Your task to perform on an android device: see creations saved in the google photos Image 0: 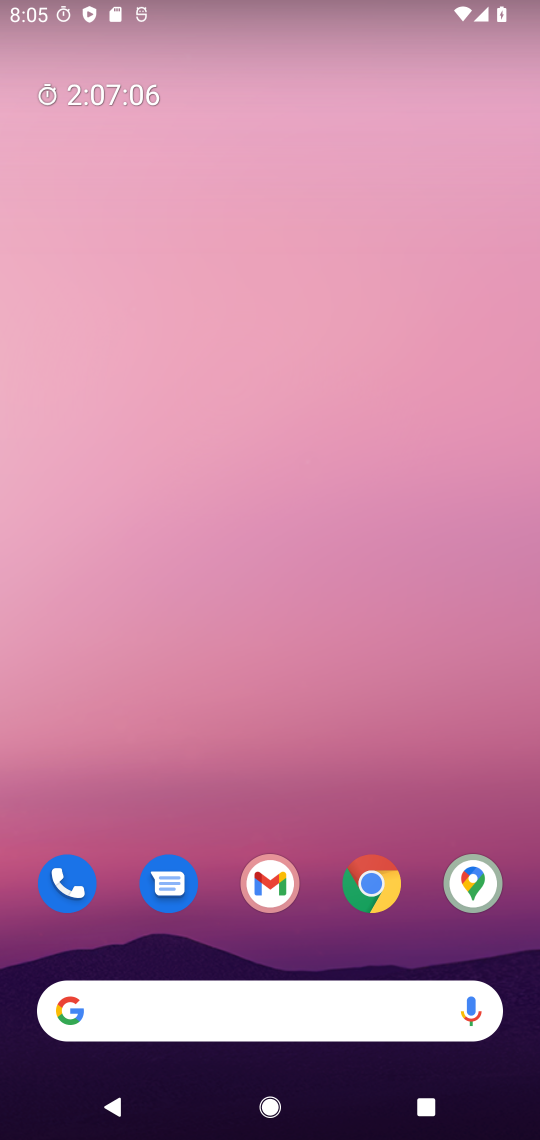
Step 0: drag from (271, 792) to (314, 323)
Your task to perform on an android device: see creations saved in the google photos Image 1: 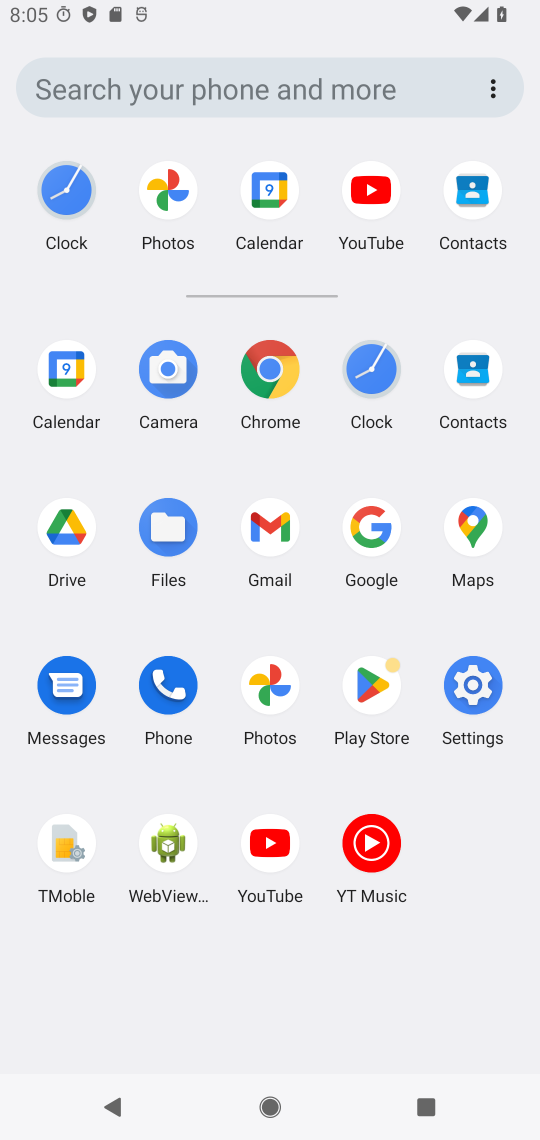
Step 1: click (171, 177)
Your task to perform on an android device: see creations saved in the google photos Image 2: 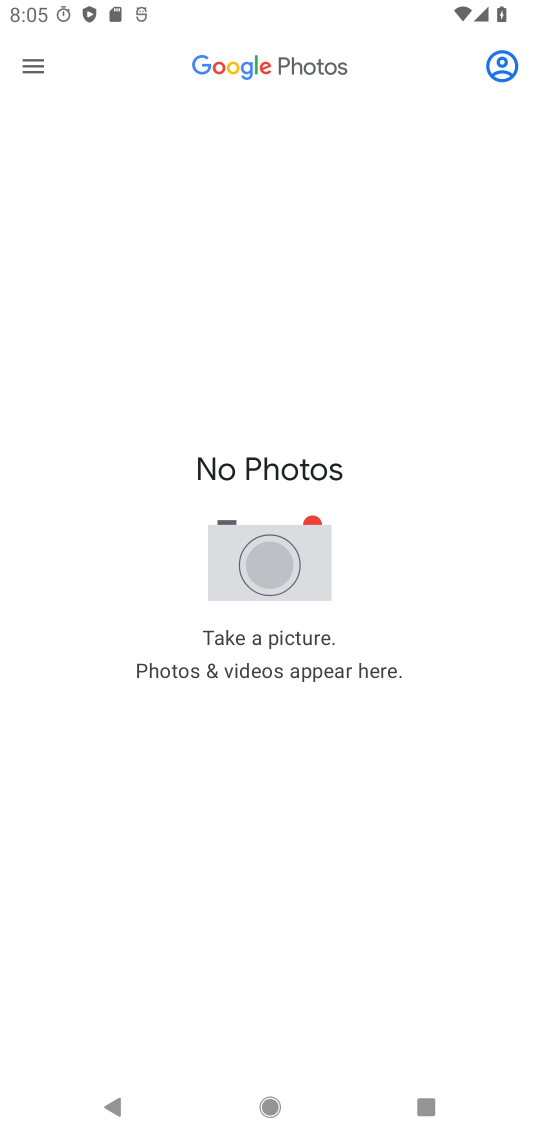
Step 2: click (40, 74)
Your task to perform on an android device: see creations saved in the google photos Image 3: 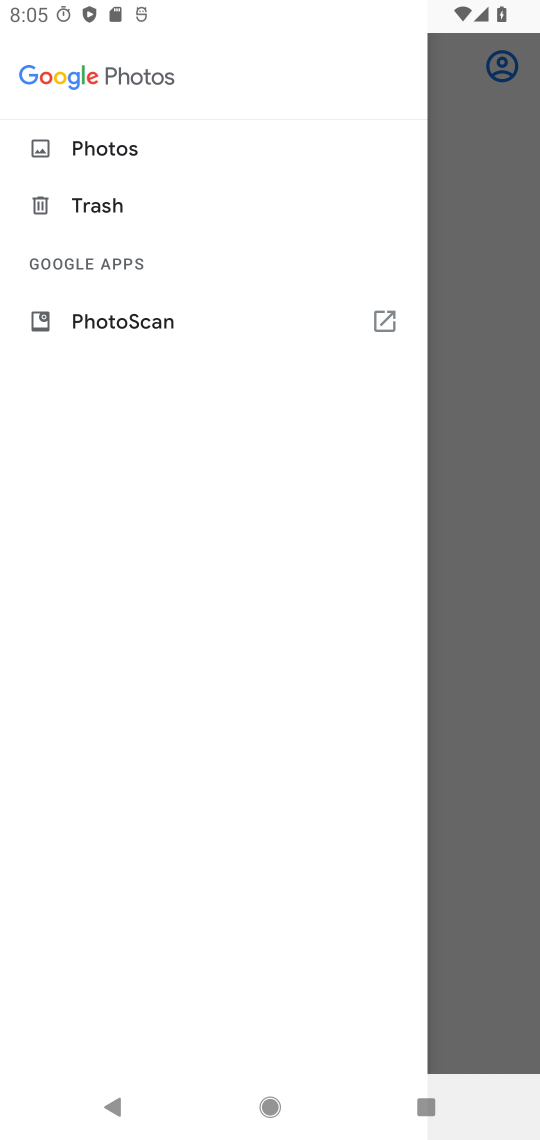
Step 3: click (123, 135)
Your task to perform on an android device: see creations saved in the google photos Image 4: 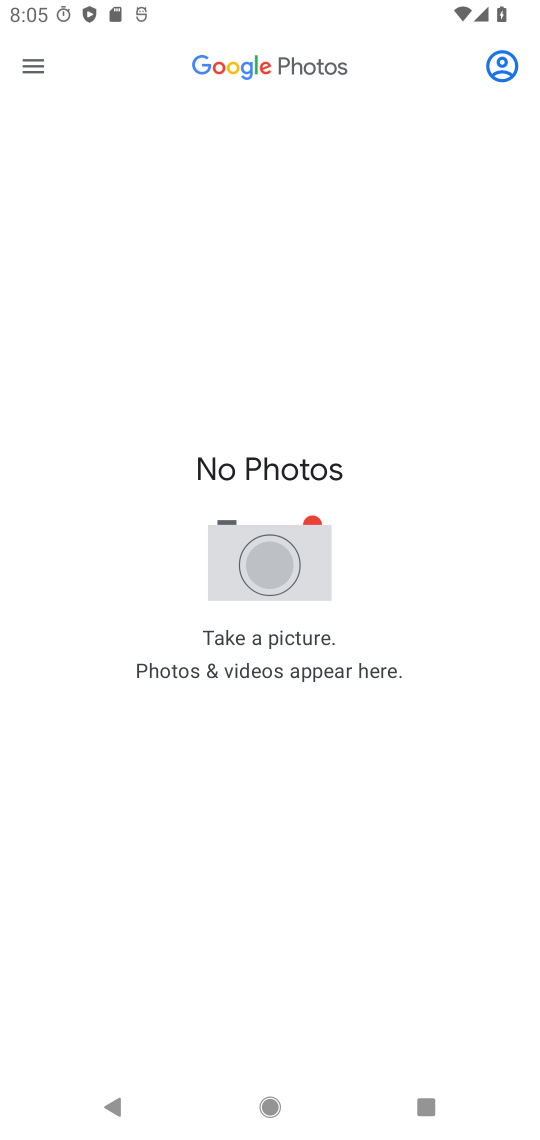
Step 4: click (267, 75)
Your task to perform on an android device: see creations saved in the google photos Image 5: 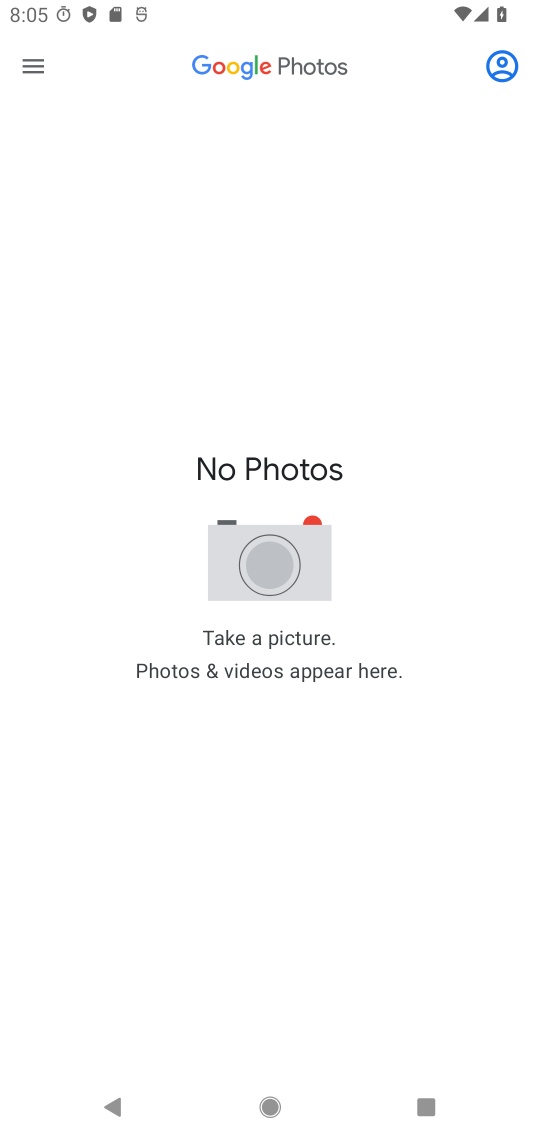
Step 5: click (379, 61)
Your task to perform on an android device: see creations saved in the google photos Image 6: 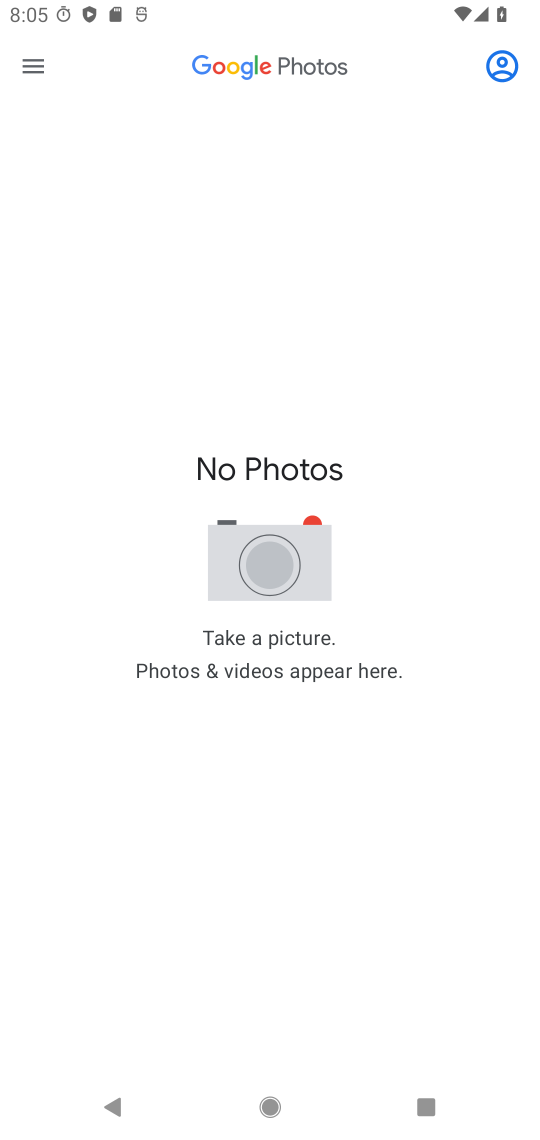
Step 6: click (502, 61)
Your task to perform on an android device: see creations saved in the google photos Image 7: 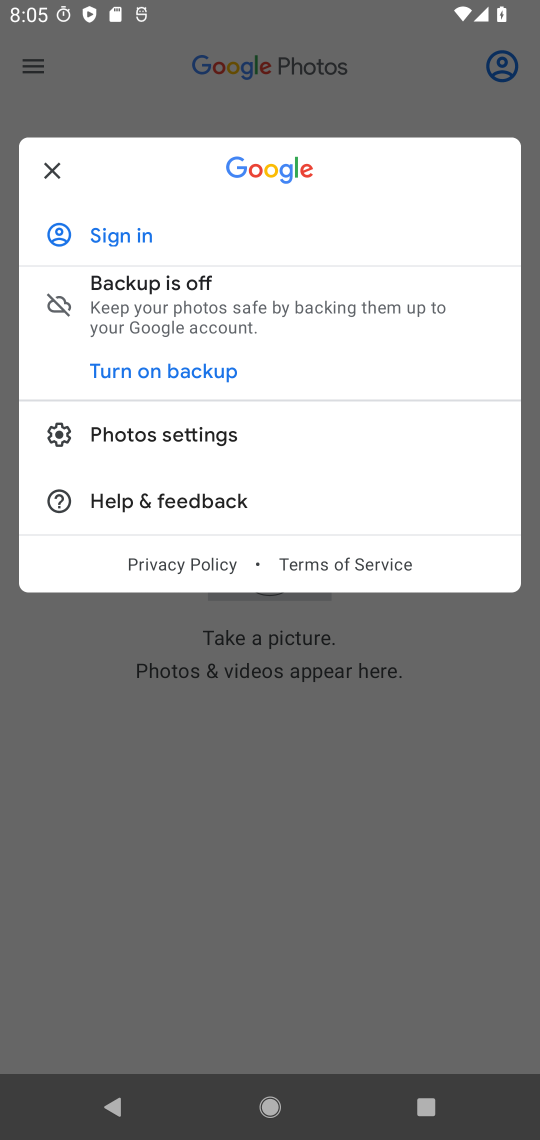
Step 7: task complete